Your task to perform on an android device: add a contact Image 0: 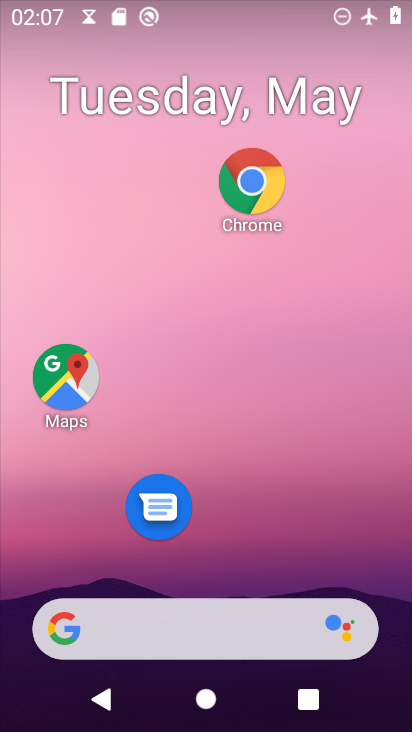
Step 0: drag from (253, 464) to (268, 208)
Your task to perform on an android device: add a contact Image 1: 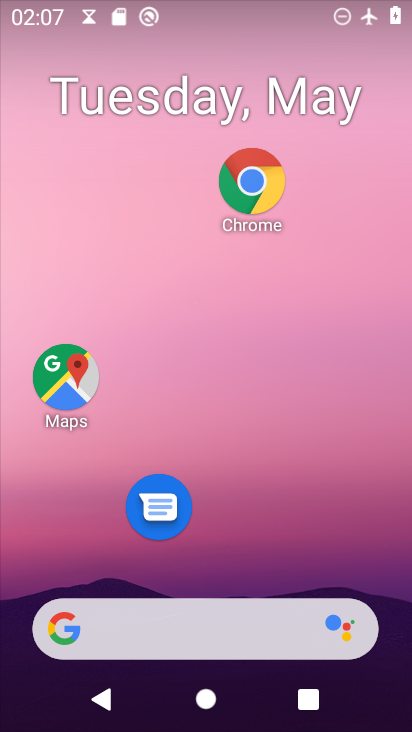
Step 1: drag from (233, 455) to (248, 251)
Your task to perform on an android device: add a contact Image 2: 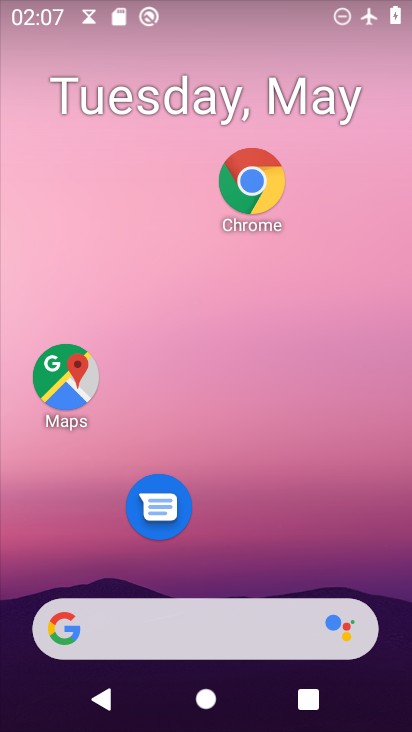
Step 2: drag from (287, 553) to (311, 265)
Your task to perform on an android device: add a contact Image 3: 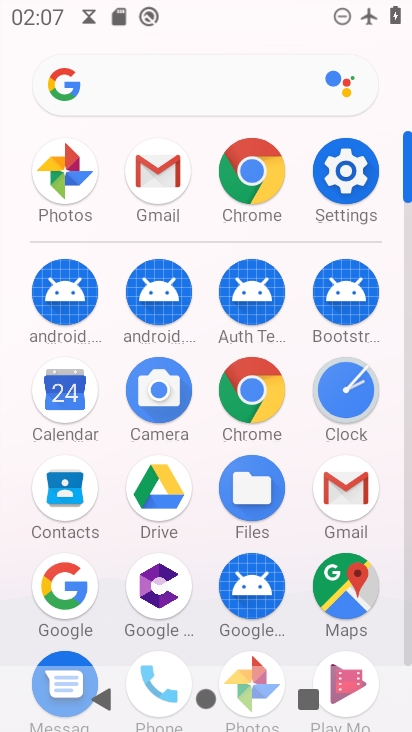
Step 3: drag from (179, 640) to (191, 413)
Your task to perform on an android device: add a contact Image 4: 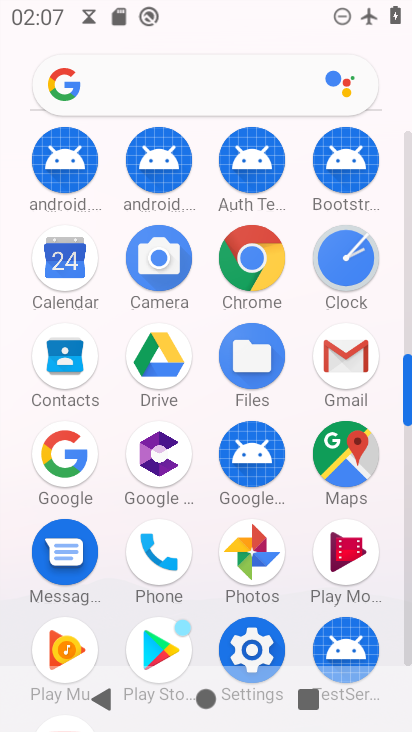
Step 4: click (158, 542)
Your task to perform on an android device: add a contact Image 5: 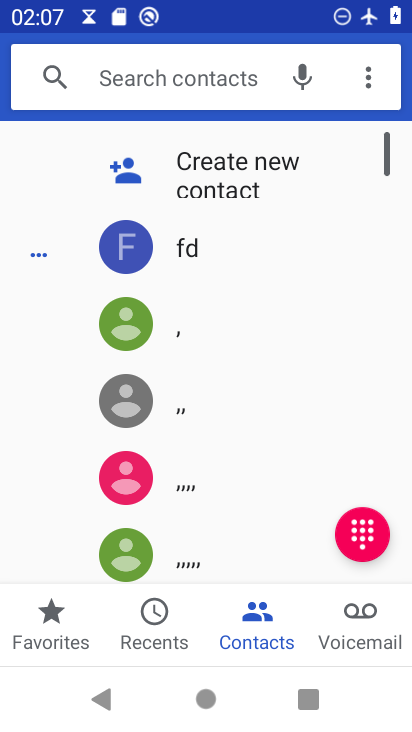
Step 5: click (224, 192)
Your task to perform on an android device: add a contact Image 6: 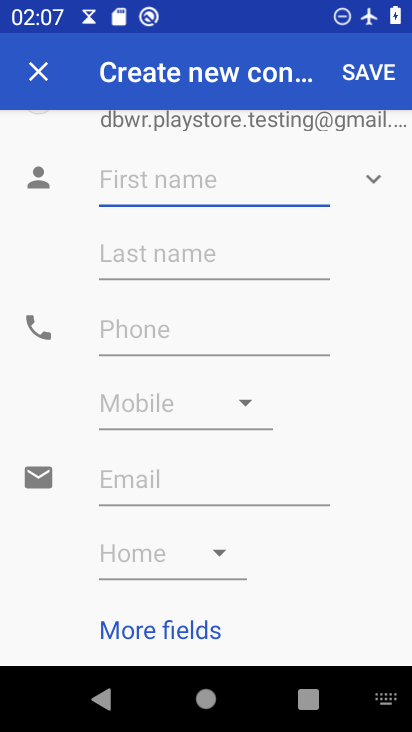
Step 6: click (167, 159)
Your task to perform on an android device: add a contact Image 7: 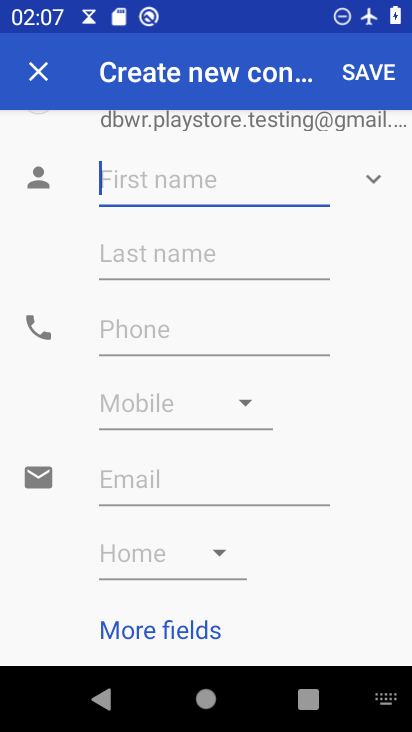
Step 7: type "vvvvvvvvvvvvvv"
Your task to perform on an android device: add a contact Image 8: 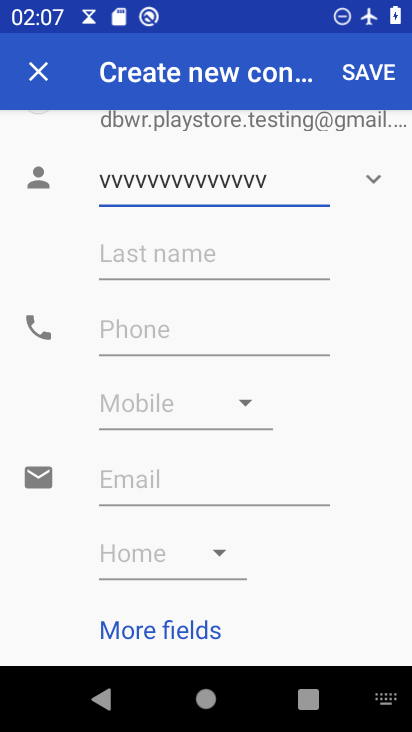
Step 8: click (217, 347)
Your task to perform on an android device: add a contact Image 9: 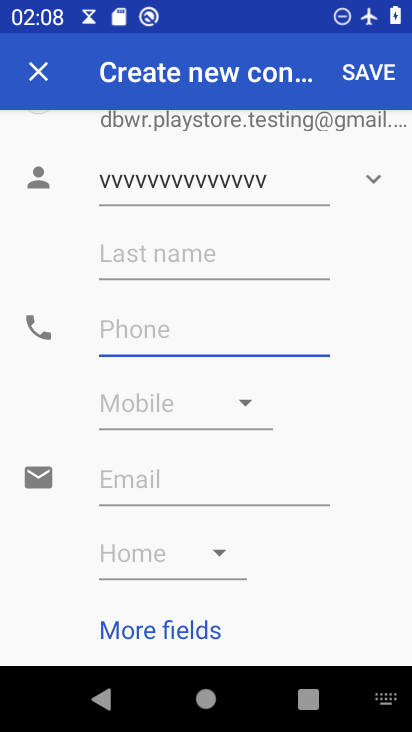
Step 9: type "0987654321"
Your task to perform on an android device: add a contact Image 10: 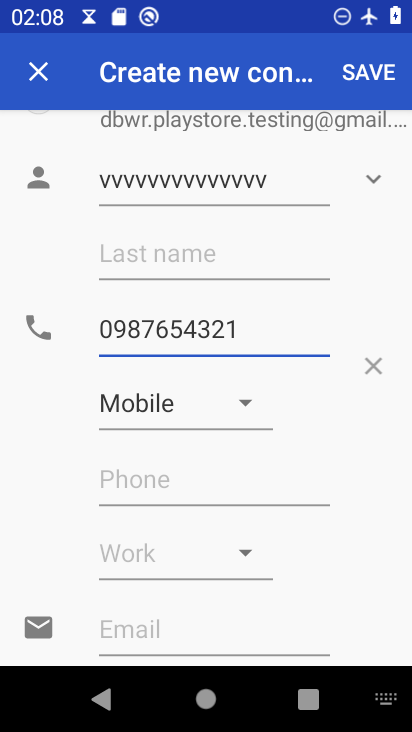
Step 10: click (359, 78)
Your task to perform on an android device: add a contact Image 11: 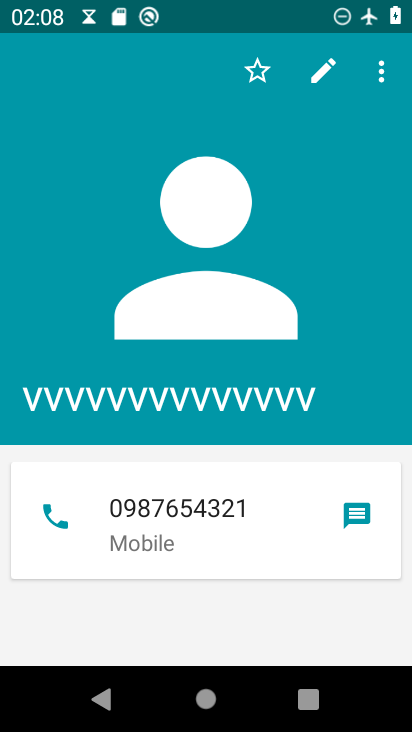
Step 11: task complete